Your task to perform on an android device: Search for sushi restaurants on Maps Image 0: 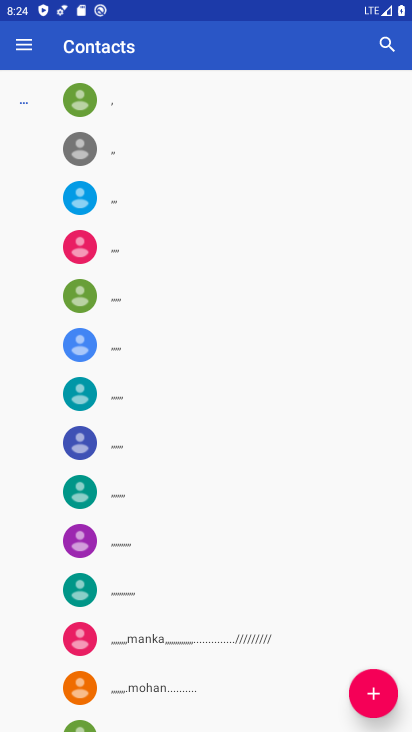
Step 0: press home button
Your task to perform on an android device: Search for sushi restaurants on Maps Image 1: 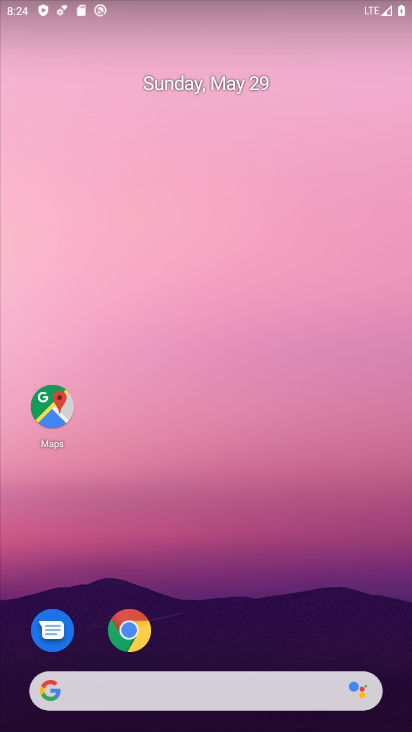
Step 1: click (55, 403)
Your task to perform on an android device: Search for sushi restaurants on Maps Image 2: 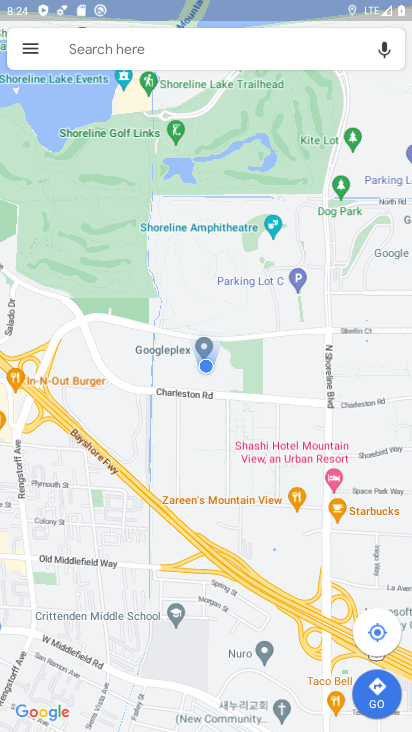
Step 2: click (124, 37)
Your task to perform on an android device: Search for sushi restaurants on Maps Image 3: 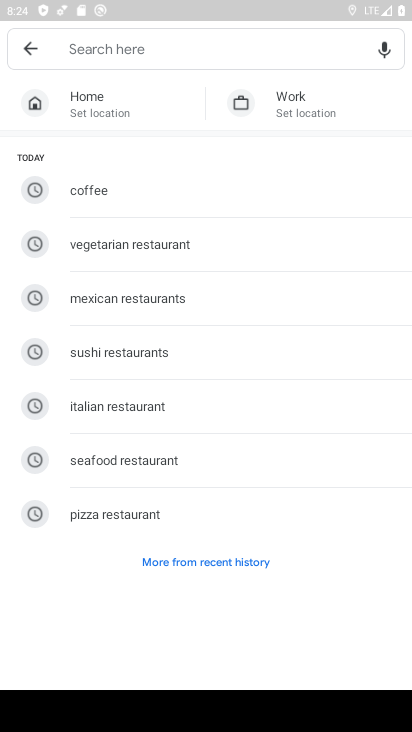
Step 3: click (106, 363)
Your task to perform on an android device: Search for sushi restaurants on Maps Image 4: 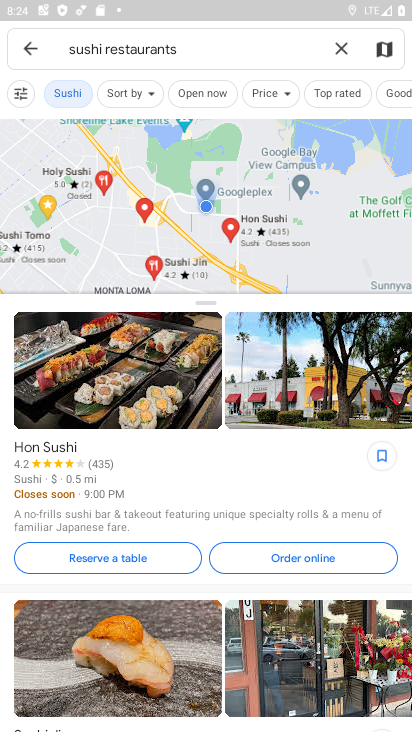
Step 4: task complete